Your task to perform on an android device: manage bookmarks in the chrome app Image 0: 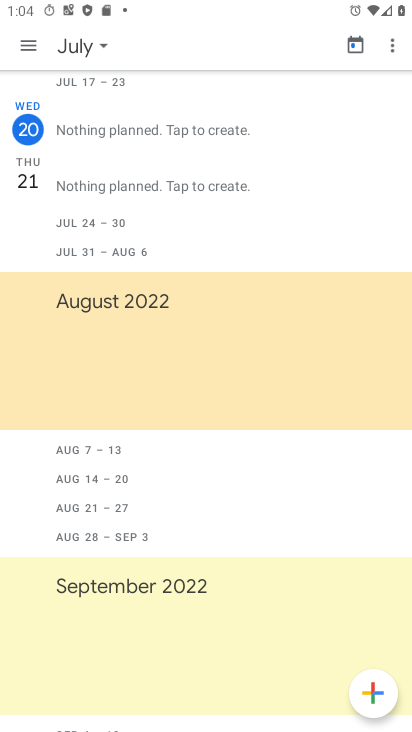
Step 0: press home button
Your task to perform on an android device: manage bookmarks in the chrome app Image 1: 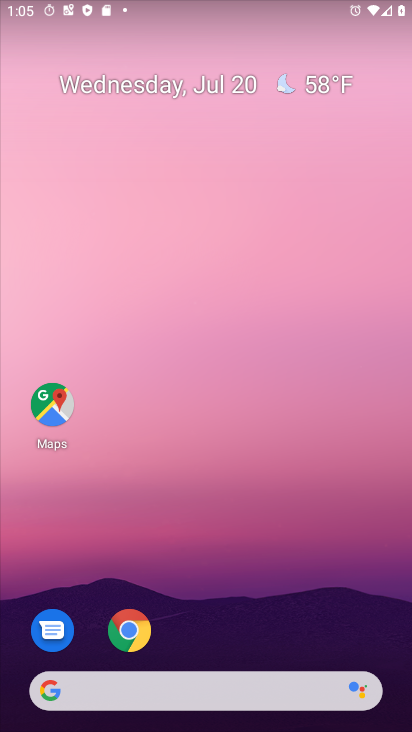
Step 1: click (132, 625)
Your task to perform on an android device: manage bookmarks in the chrome app Image 2: 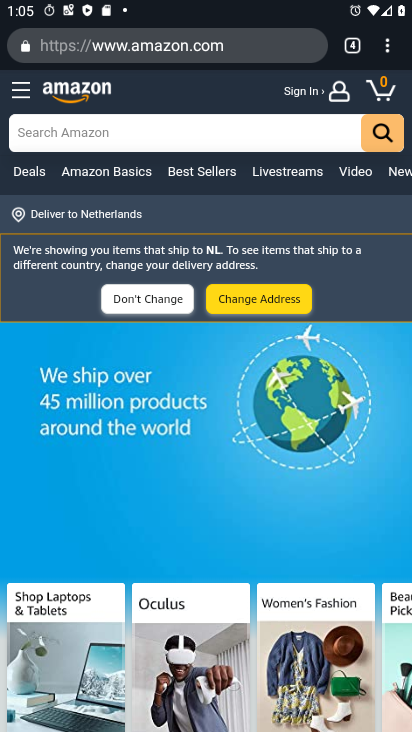
Step 2: drag from (389, 46) to (283, 172)
Your task to perform on an android device: manage bookmarks in the chrome app Image 3: 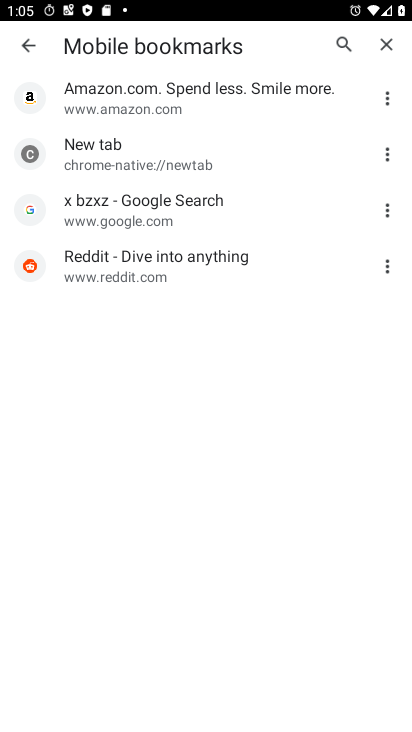
Step 3: click (386, 100)
Your task to perform on an android device: manage bookmarks in the chrome app Image 4: 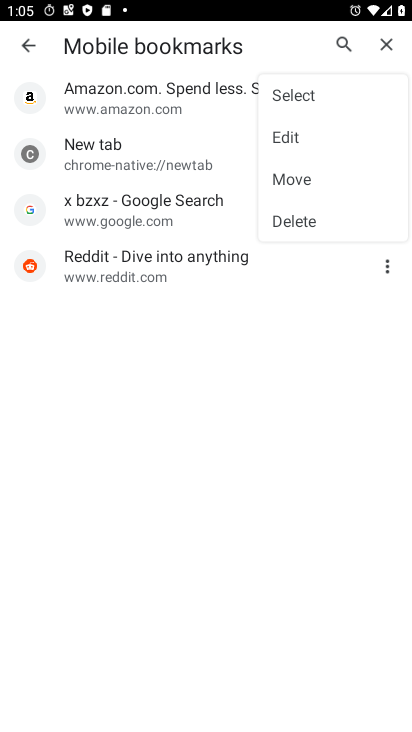
Step 4: click (306, 181)
Your task to perform on an android device: manage bookmarks in the chrome app Image 5: 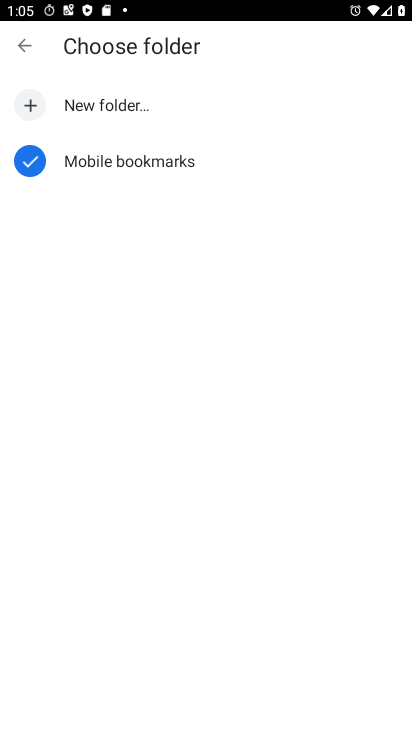
Step 5: click (127, 104)
Your task to perform on an android device: manage bookmarks in the chrome app Image 6: 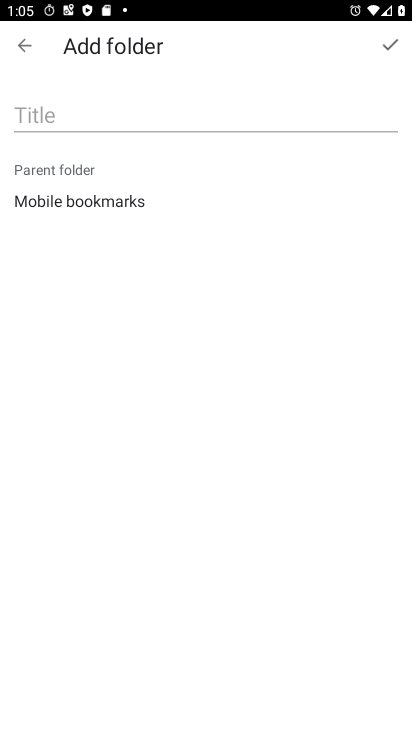
Step 6: click (74, 115)
Your task to perform on an android device: manage bookmarks in the chrome app Image 7: 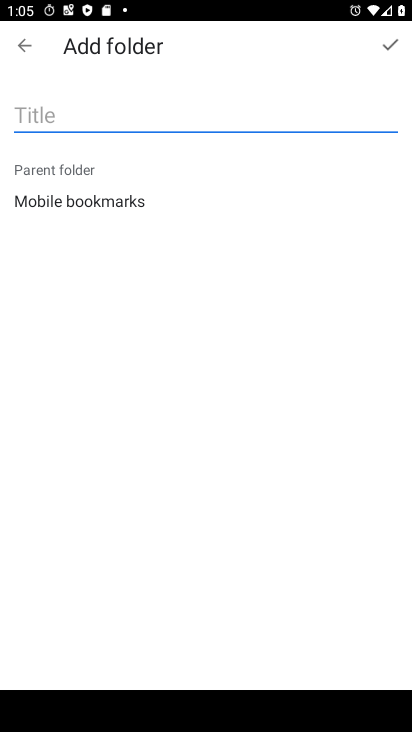
Step 7: type "cvfrtth"
Your task to perform on an android device: manage bookmarks in the chrome app Image 8: 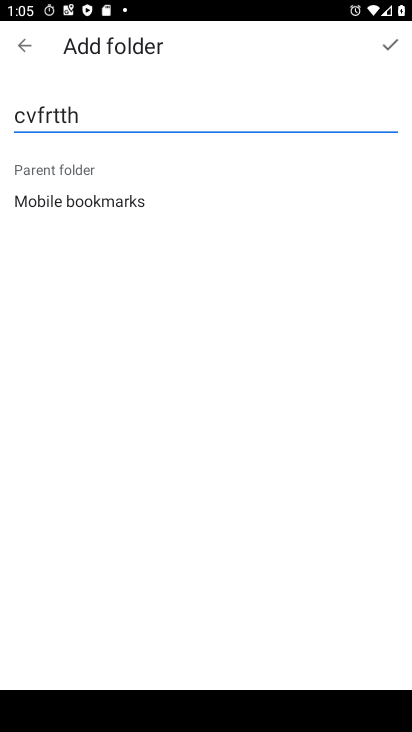
Step 8: click (389, 42)
Your task to perform on an android device: manage bookmarks in the chrome app Image 9: 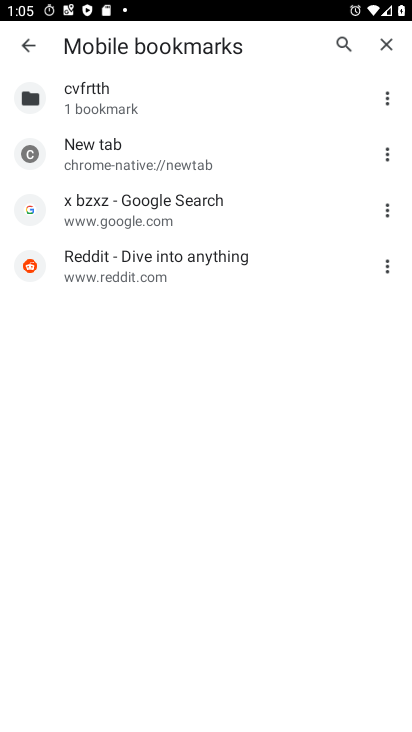
Step 9: task complete